Your task to perform on an android device: Is it going to rain today? Image 0: 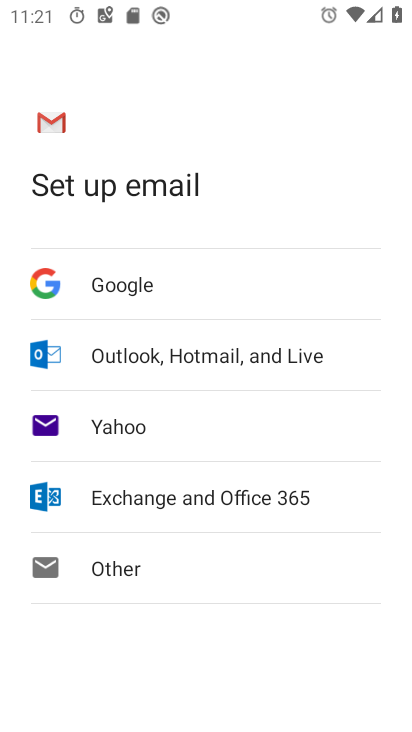
Step 0: press home button
Your task to perform on an android device: Is it going to rain today? Image 1: 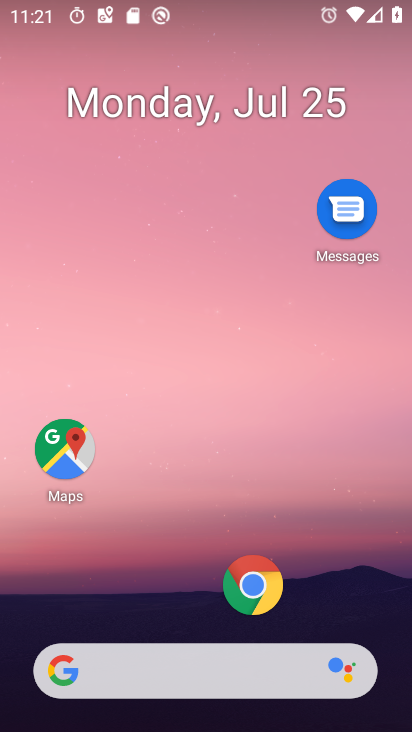
Step 1: click (138, 659)
Your task to perform on an android device: Is it going to rain today? Image 2: 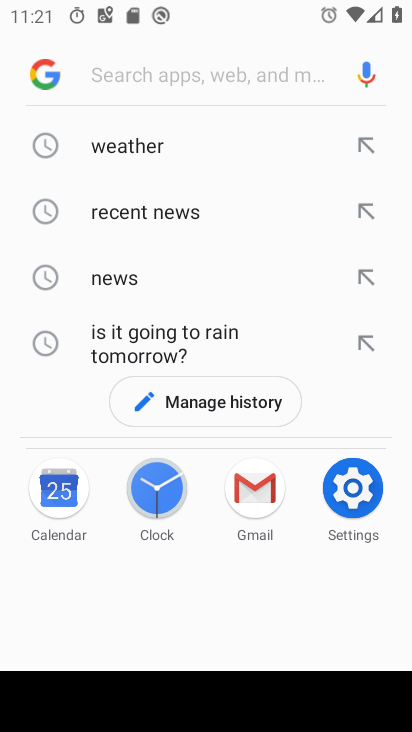
Step 2: click (145, 140)
Your task to perform on an android device: Is it going to rain today? Image 3: 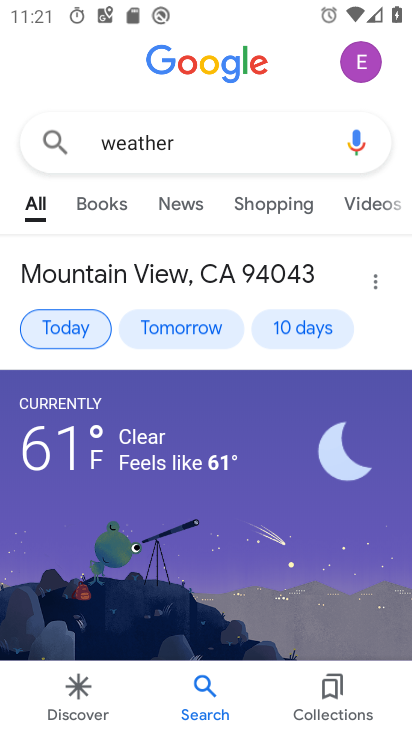
Step 3: task complete